Your task to perform on an android device: Show the shopping cart on newegg.com. Search for macbook air on newegg.com, select the first entry, add it to the cart, then select checkout. Image 0: 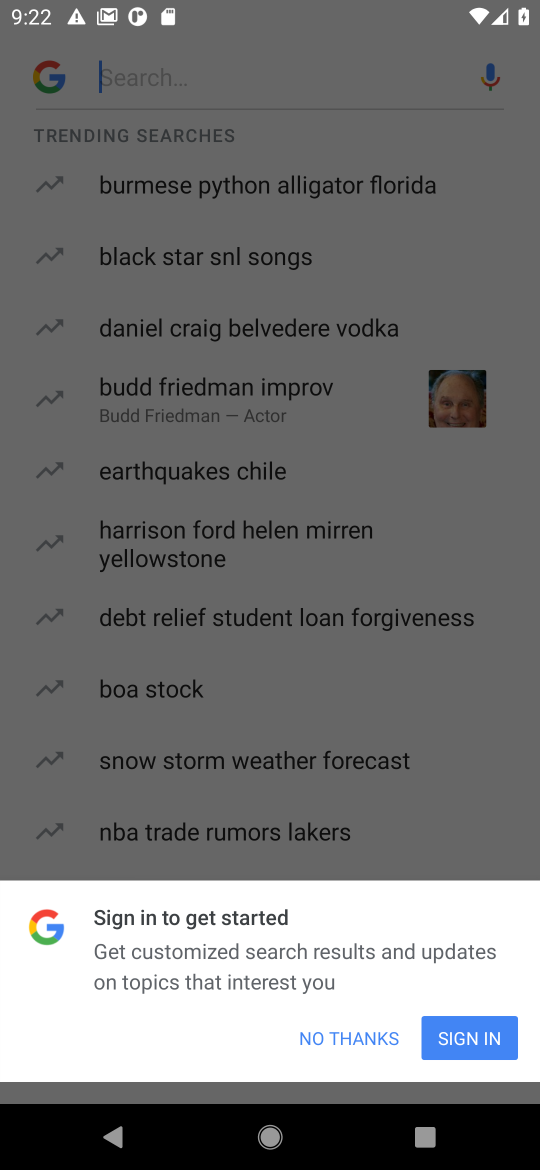
Step 0: press home button
Your task to perform on an android device: Show the shopping cart on newegg.com. Search for macbook air on newegg.com, select the first entry, add it to the cart, then select checkout. Image 1: 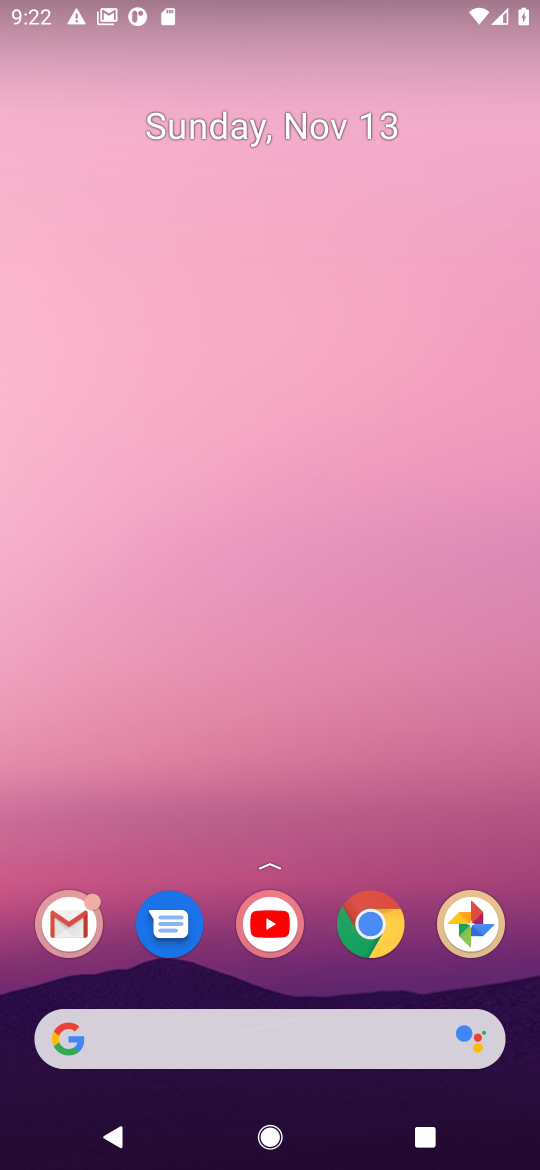
Step 1: click (380, 936)
Your task to perform on an android device: Show the shopping cart on newegg.com. Search for macbook air on newegg.com, select the first entry, add it to the cart, then select checkout. Image 2: 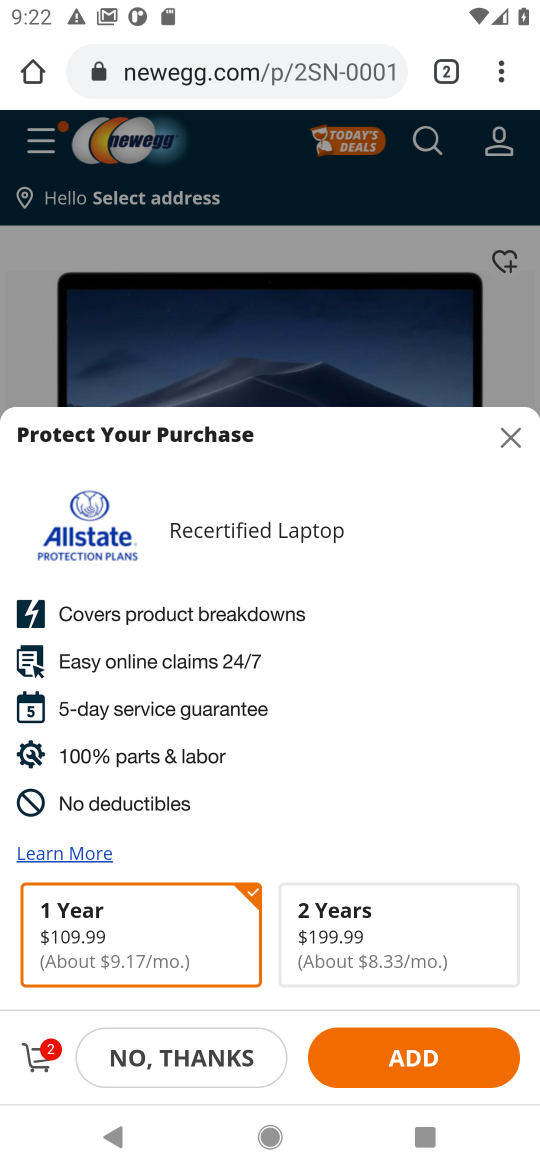
Step 2: click (509, 437)
Your task to perform on an android device: Show the shopping cart on newegg.com. Search for macbook air on newegg.com, select the first entry, add it to the cart, then select checkout. Image 3: 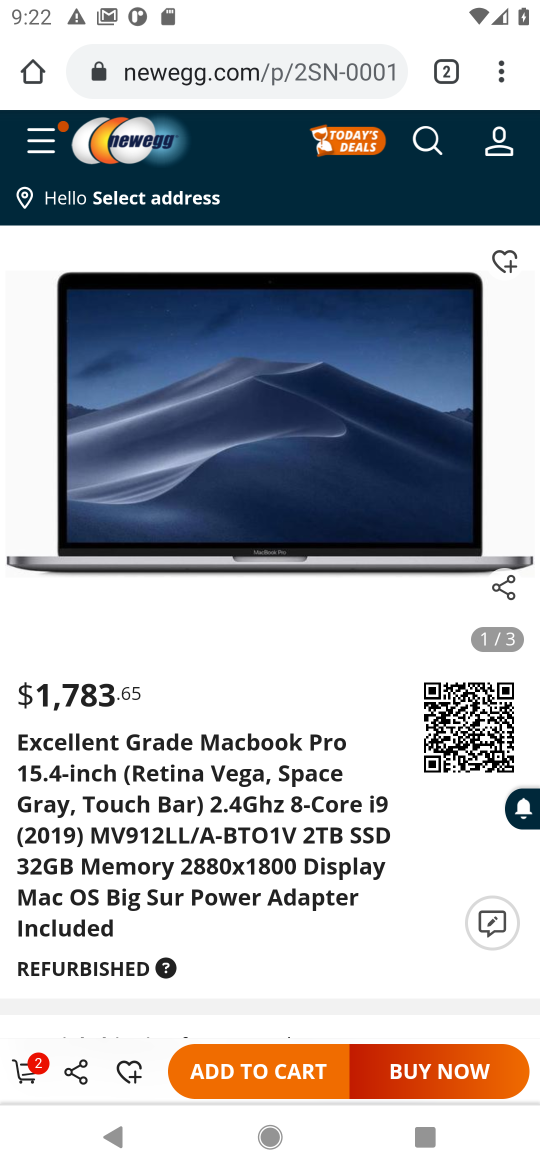
Step 3: drag from (304, 402) to (355, 963)
Your task to perform on an android device: Show the shopping cart on newegg.com. Search for macbook air on newegg.com, select the first entry, add it to the cart, then select checkout. Image 4: 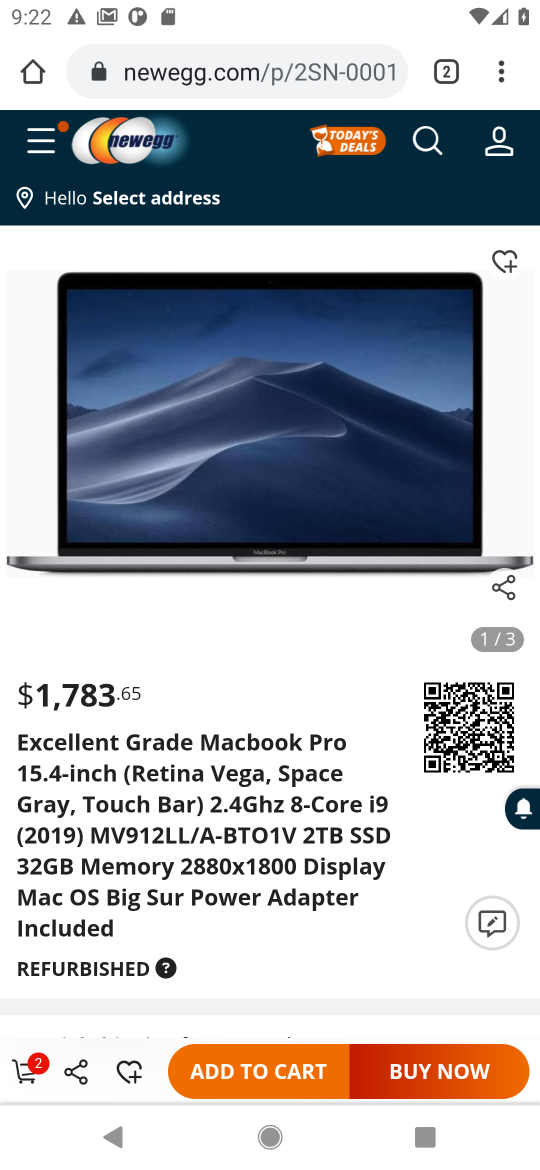
Step 4: click (23, 1070)
Your task to perform on an android device: Show the shopping cart on newegg.com. Search for macbook air on newegg.com, select the first entry, add it to the cart, then select checkout. Image 5: 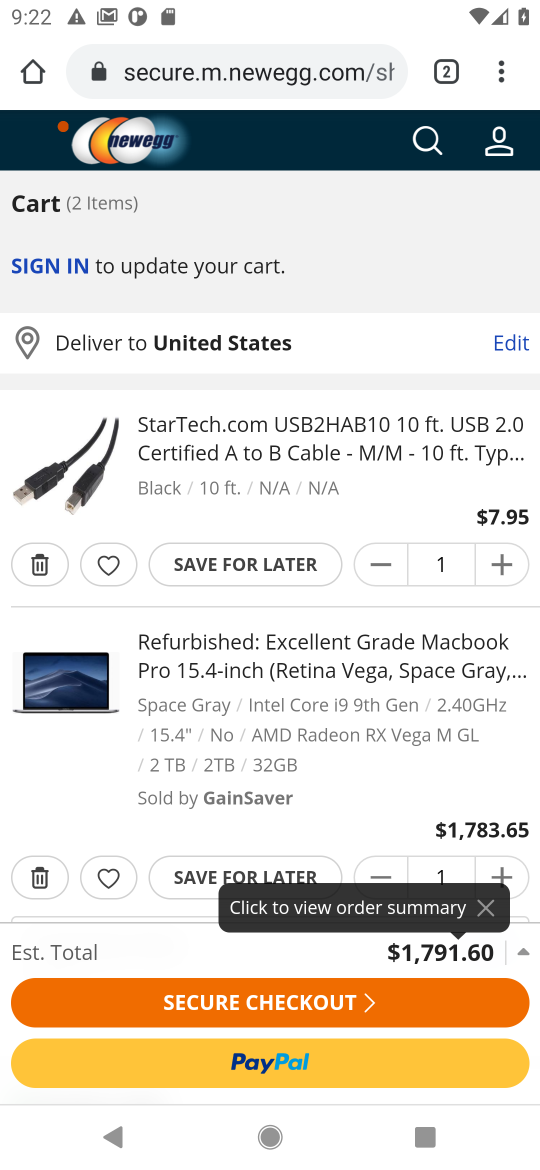
Step 5: drag from (223, 794) to (226, 532)
Your task to perform on an android device: Show the shopping cart on newegg.com. Search for macbook air on newegg.com, select the first entry, add it to the cart, then select checkout. Image 6: 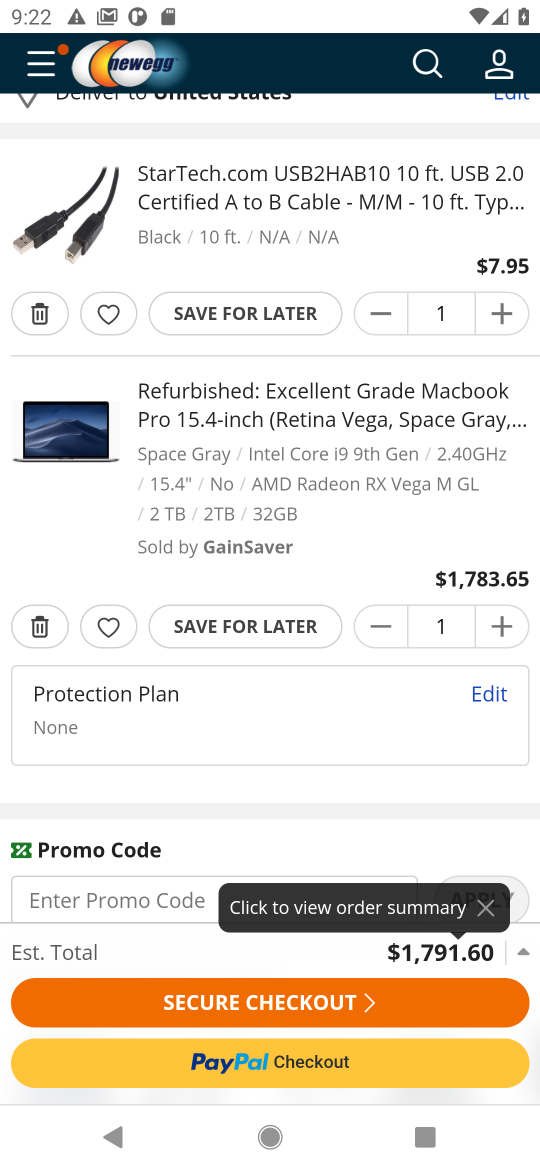
Step 6: click (423, 69)
Your task to perform on an android device: Show the shopping cart on newegg.com. Search for macbook air on newegg.com, select the first entry, add it to the cart, then select checkout. Image 7: 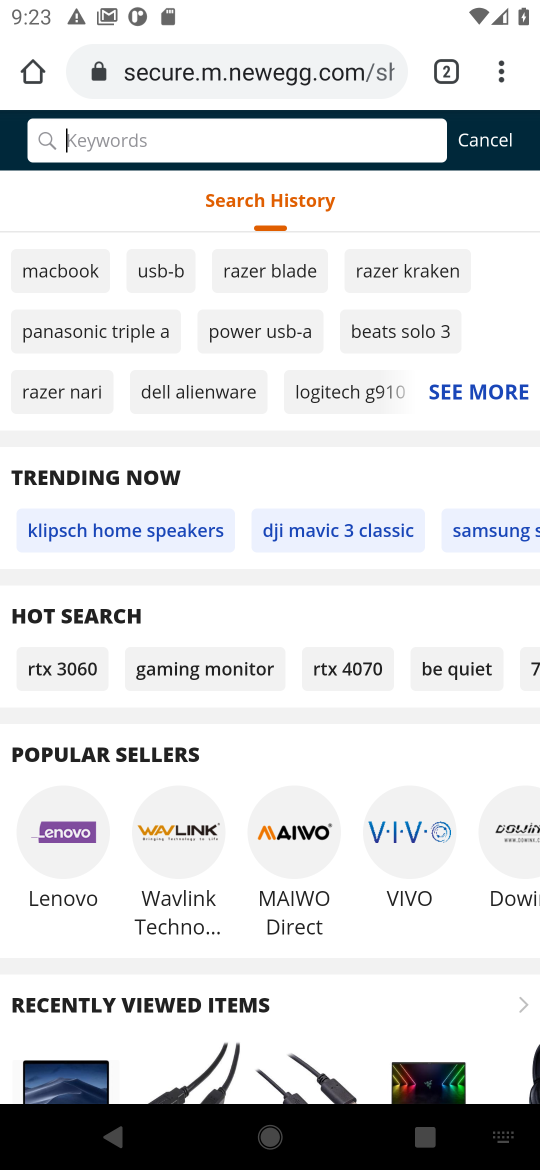
Step 7: type "macbook air"
Your task to perform on an android device: Show the shopping cart on newegg.com. Search for macbook air on newegg.com, select the first entry, add it to the cart, then select checkout. Image 8: 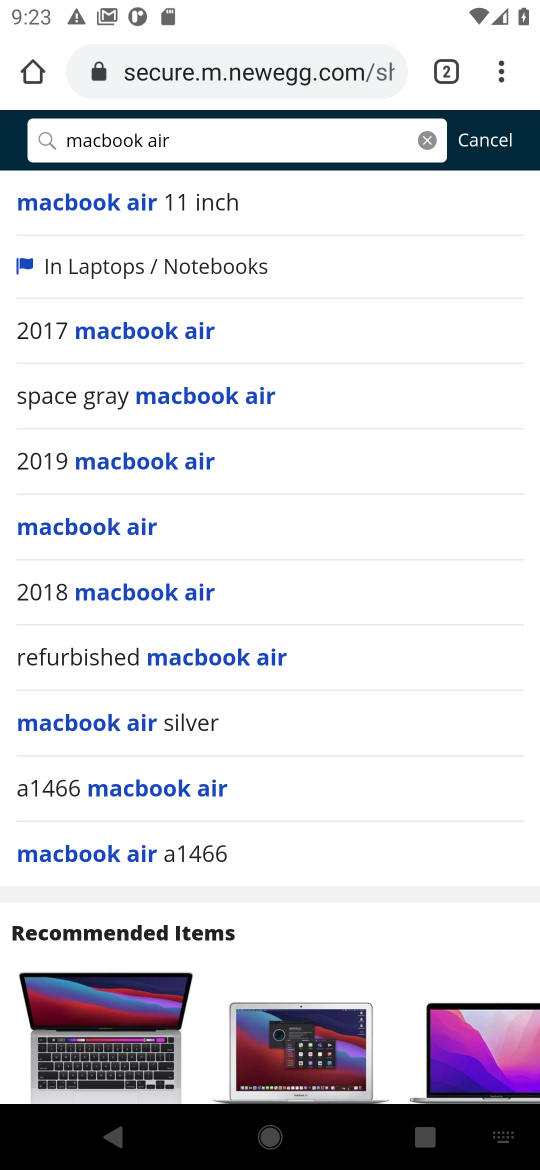
Step 8: click (104, 527)
Your task to perform on an android device: Show the shopping cart on newegg.com. Search for macbook air on newegg.com, select the first entry, add it to the cart, then select checkout. Image 9: 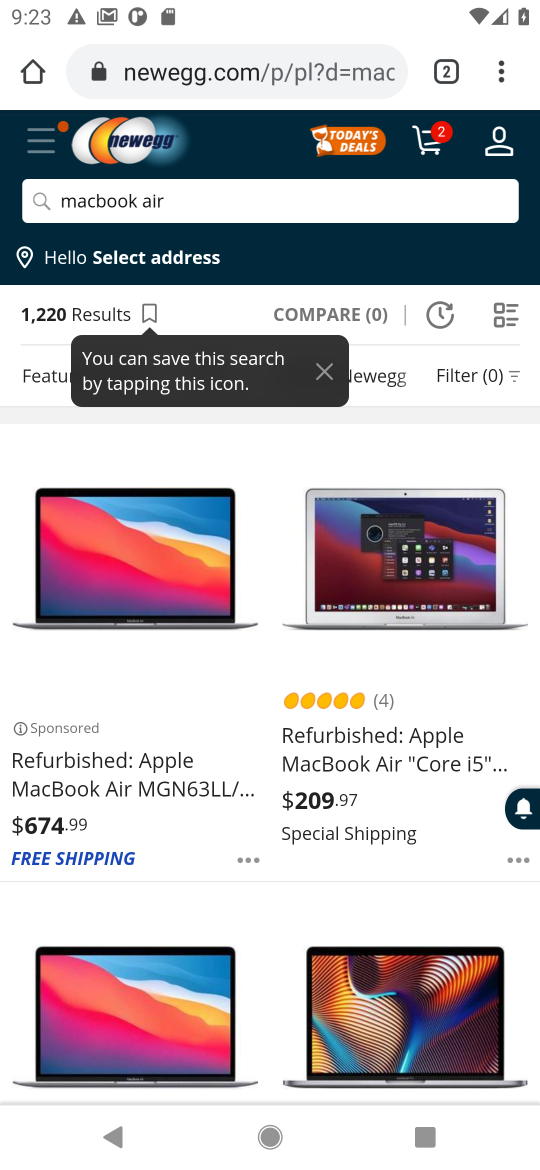
Step 9: click (103, 773)
Your task to perform on an android device: Show the shopping cart on newegg.com. Search for macbook air on newegg.com, select the first entry, add it to the cart, then select checkout. Image 10: 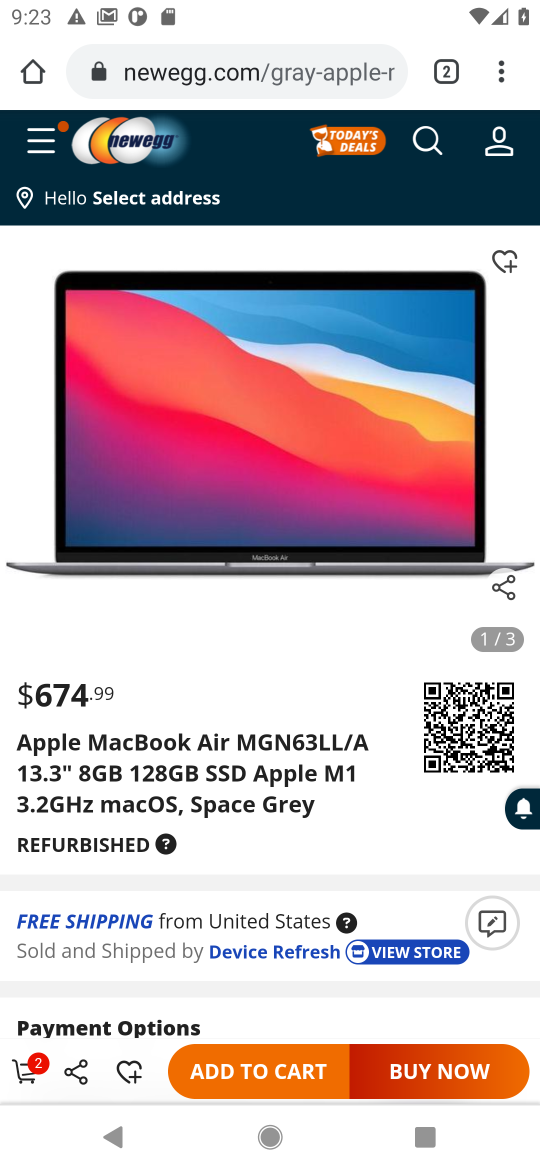
Step 10: click (221, 1063)
Your task to perform on an android device: Show the shopping cart on newegg.com. Search for macbook air on newegg.com, select the first entry, add it to the cart, then select checkout. Image 11: 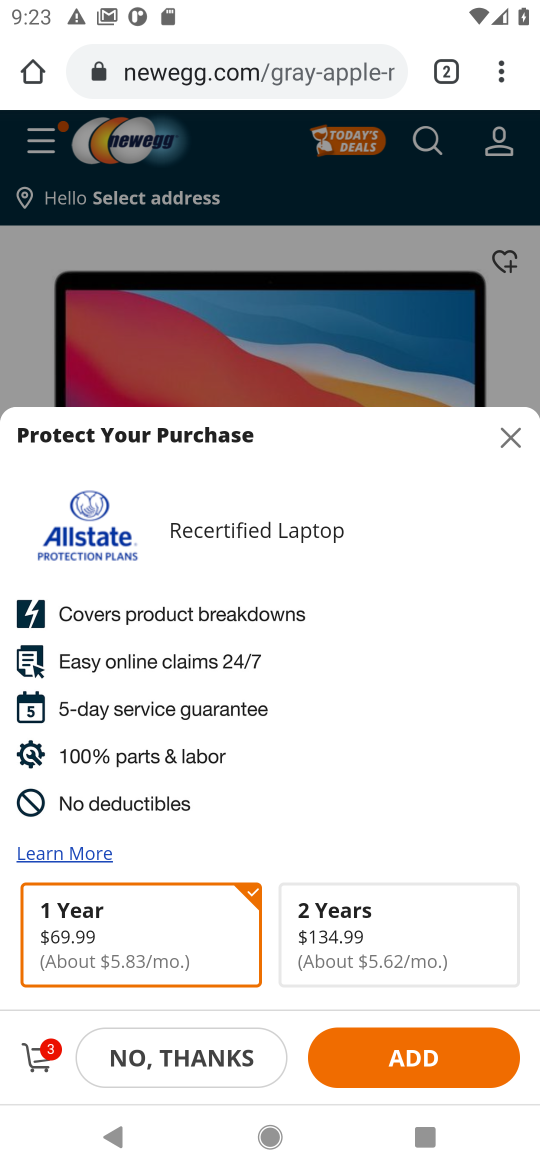
Step 11: click (44, 1052)
Your task to perform on an android device: Show the shopping cart on newegg.com. Search for macbook air on newegg.com, select the first entry, add it to the cart, then select checkout. Image 12: 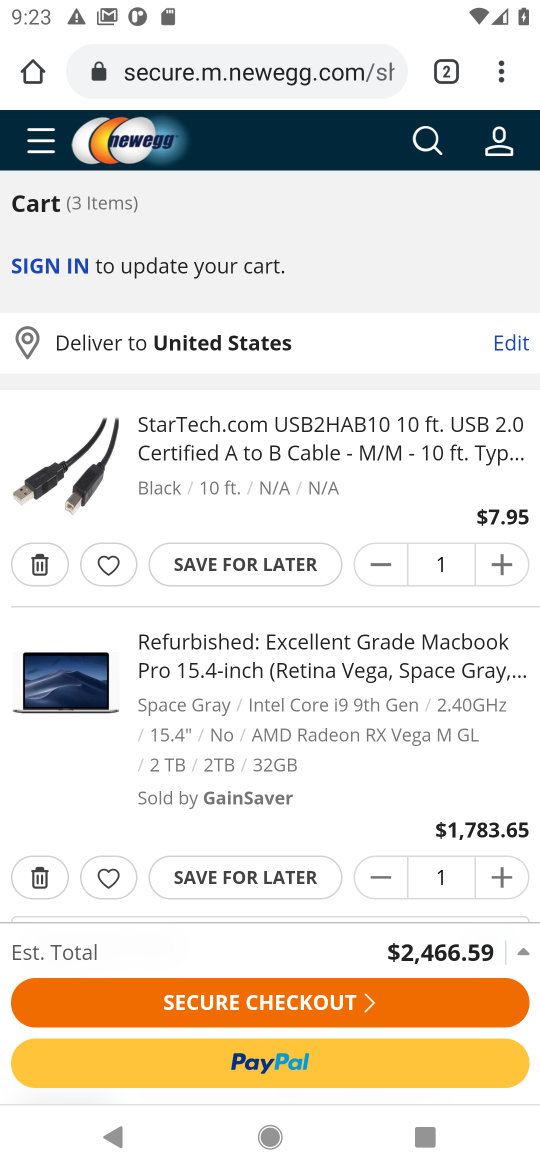
Step 12: click (238, 1053)
Your task to perform on an android device: Show the shopping cart on newegg.com. Search for macbook air on newegg.com, select the first entry, add it to the cart, then select checkout. Image 13: 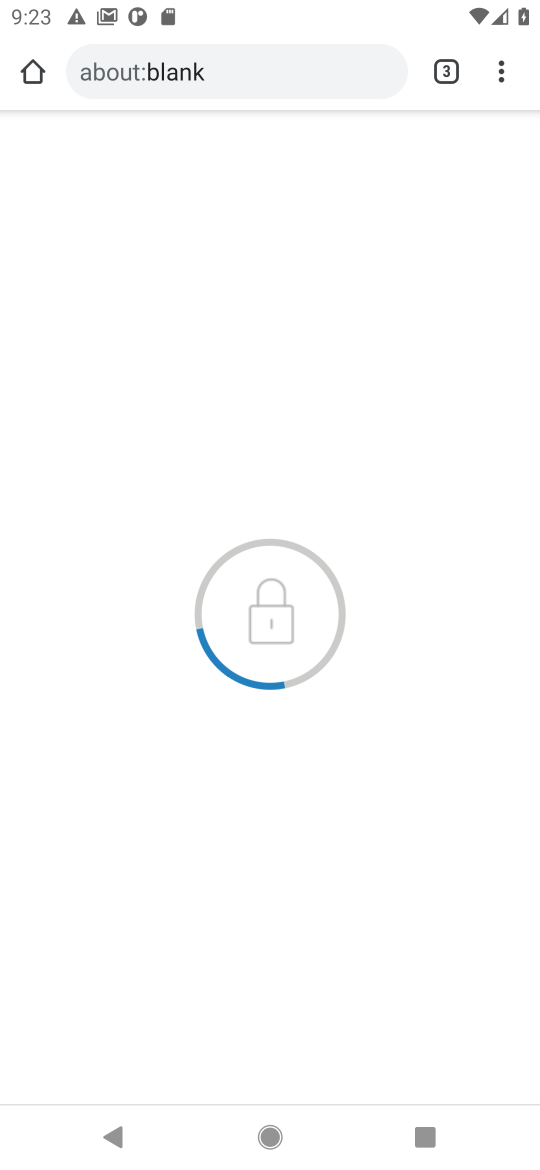
Step 13: task complete